Your task to perform on an android device: turn off smart reply in the gmail app Image 0: 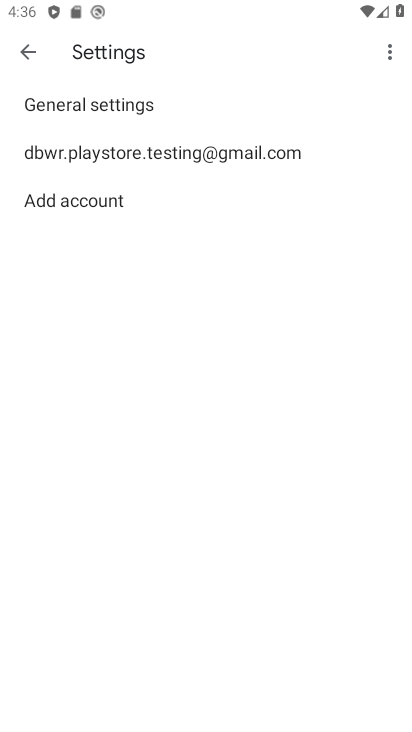
Step 0: click (179, 146)
Your task to perform on an android device: turn off smart reply in the gmail app Image 1: 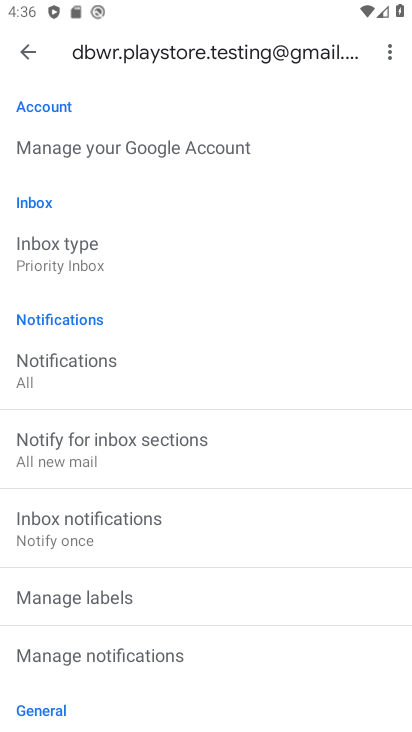
Step 1: task complete